Your task to perform on an android device: Set the phone to "Do not disturb". Image 0: 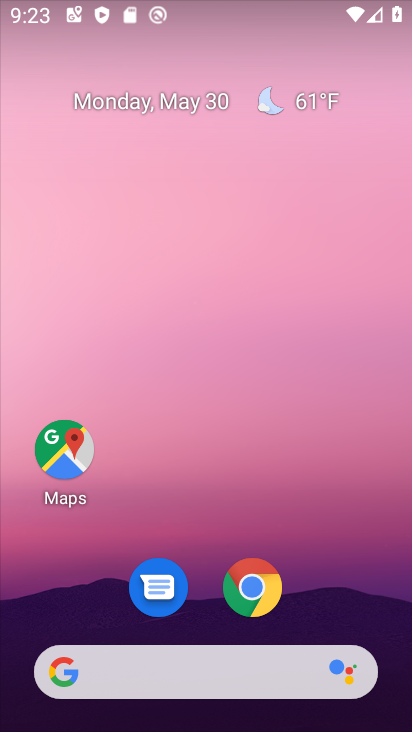
Step 0: drag from (233, 7) to (232, 725)
Your task to perform on an android device: Set the phone to "Do not disturb". Image 1: 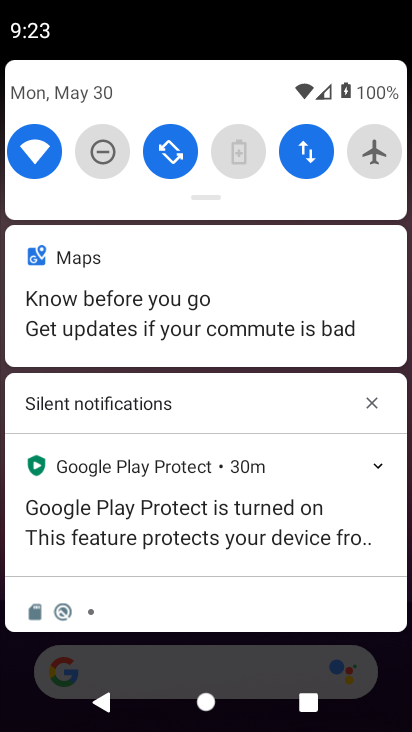
Step 1: click (94, 156)
Your task to perform on an android device: Set the phone to "Do not disturb". Image 2: 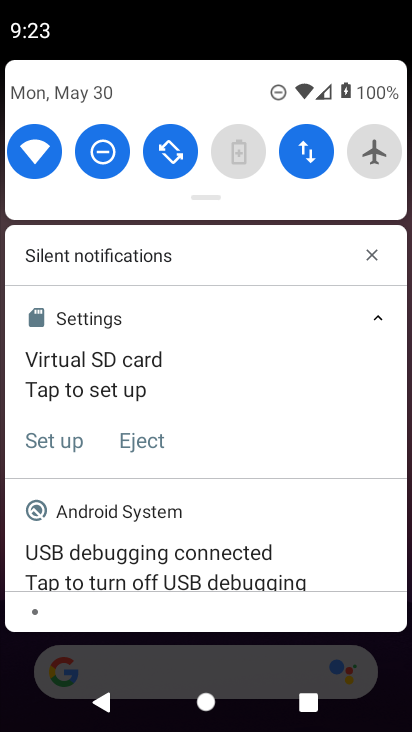
Step 2: task complete